Your task to perform on an android device: see creations saved in the google photos Image 0: 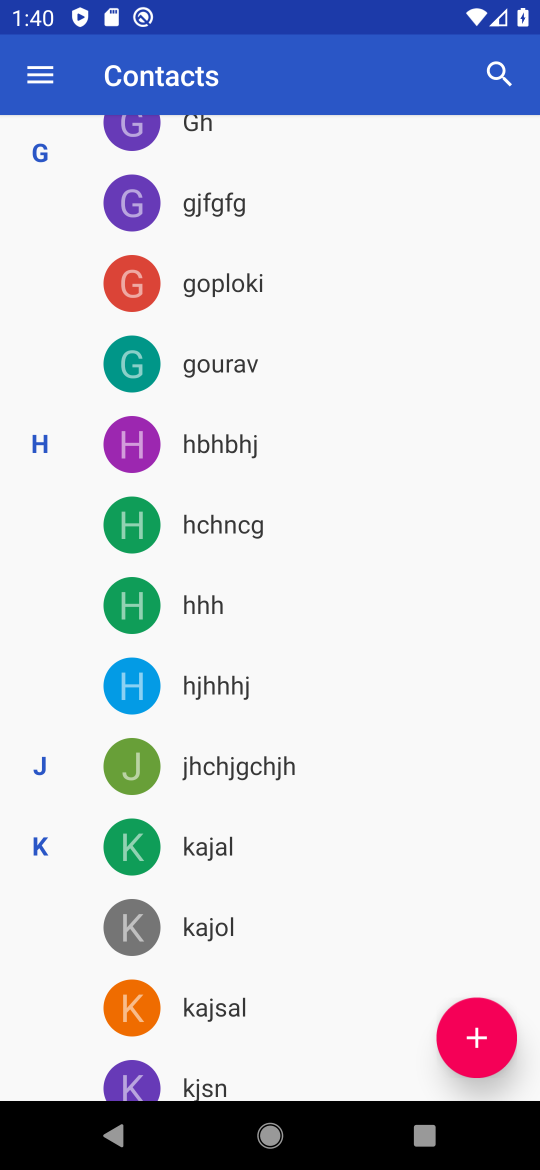
Step 0: drag from (271, 895) to (253, 266)
Your task to perform on an android device: see creations saved in the google photos Image 1: 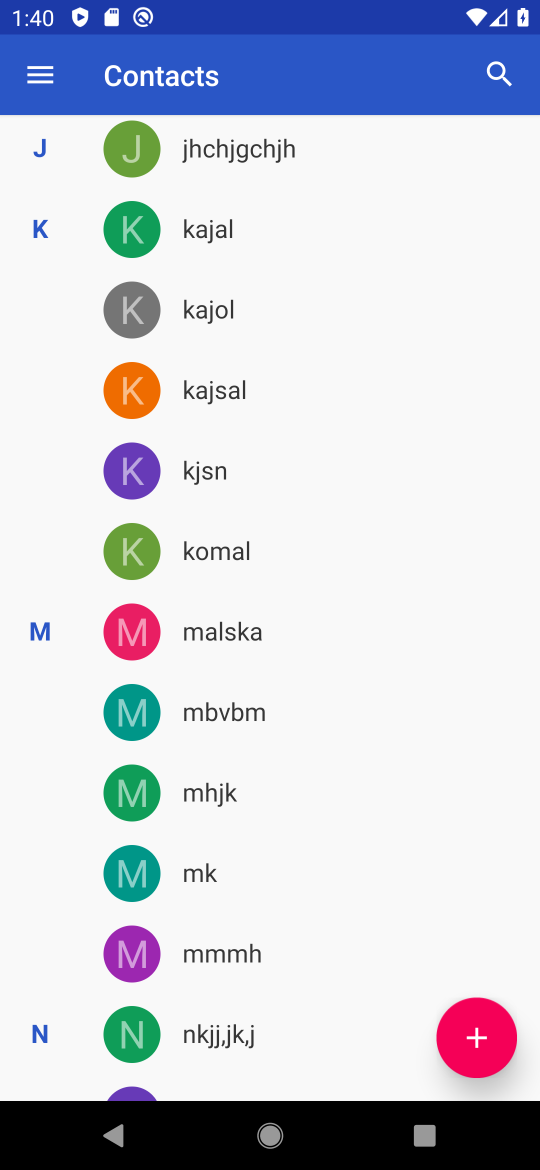
Step 1: drag from (334, 977) to (386, 301)
Your task to perform on an android device: see creations saved in the google photos Image 2: 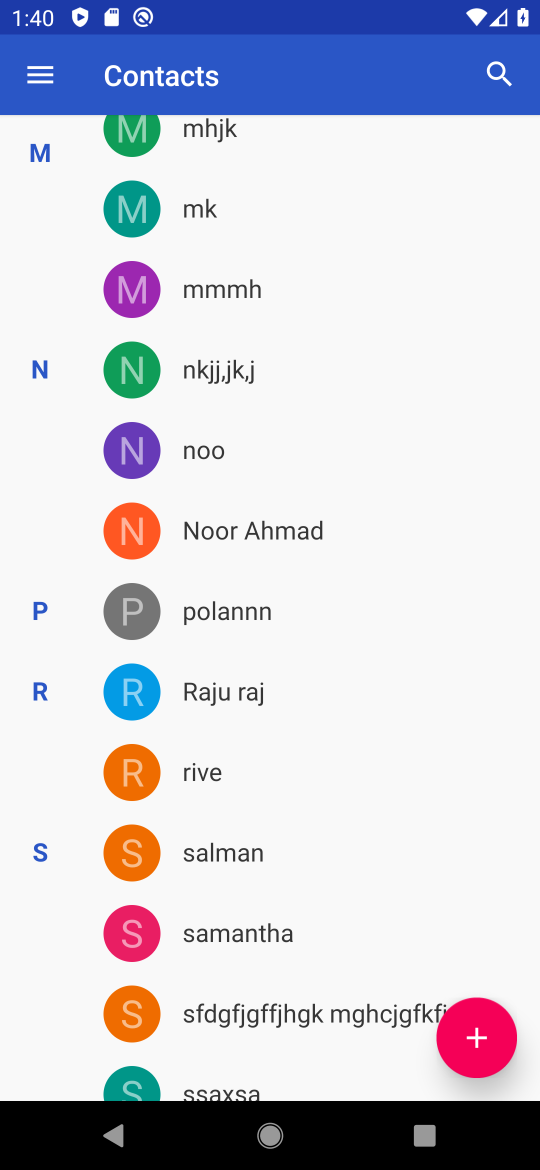
Step 2: drag from (236, 206) to (518, 902)
Your task to perform on an android device: see creations saved in the google photos Image 3: 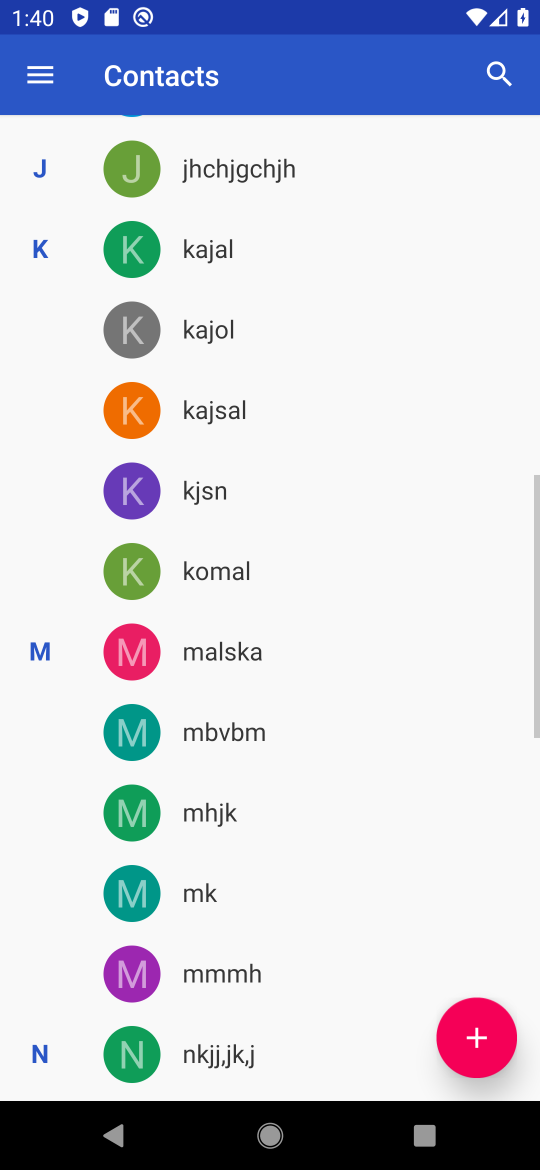
Step 3: press home button
Your task to perform on an android device: see creations saved in the google photos Image 4: 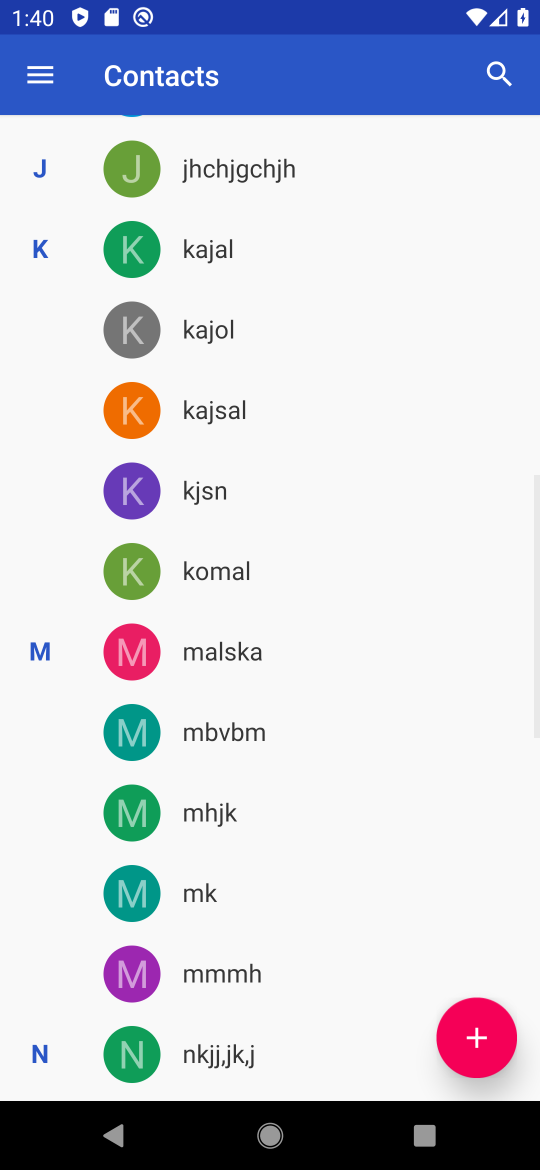
Step 4: click (493, 706)
Your task to perform on an android device: see creations saved in the google photos Image 5: 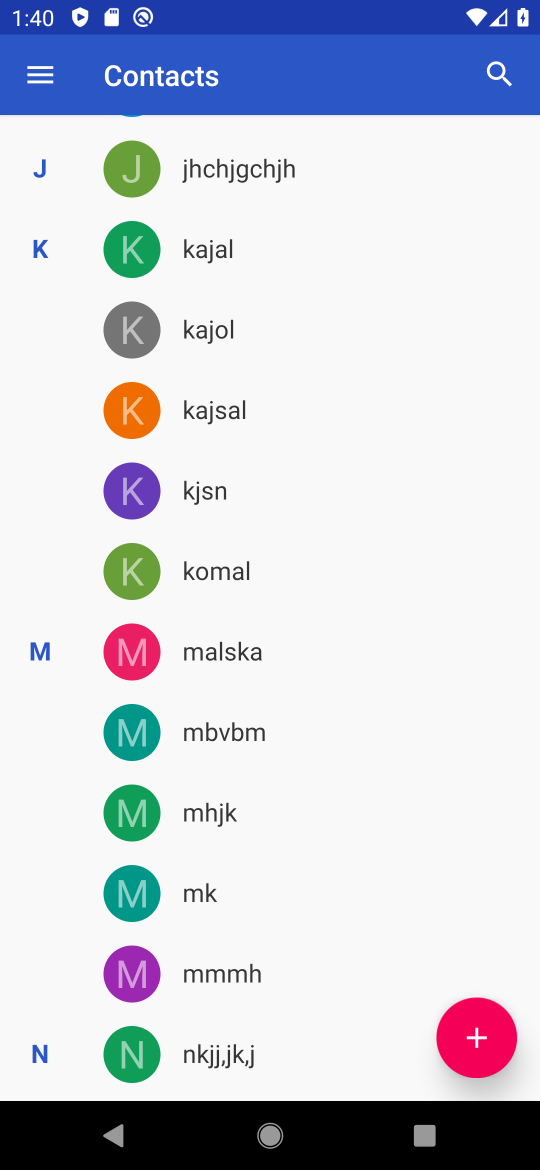
Step 5: drag from (213, 915) to (287, 54)
Your task to perform on an android device: see creations saved in the google photos Image 6: 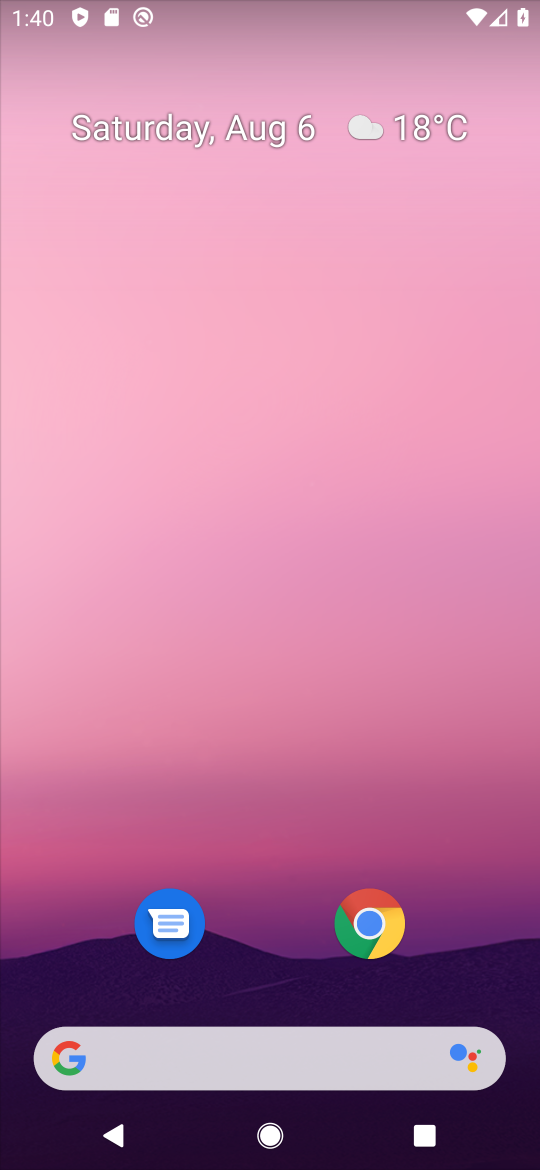
Step 6: drag from (308, 1023) to (325, 275)
Your task to perform on an android device: see creations saved in the google photos Image 7: 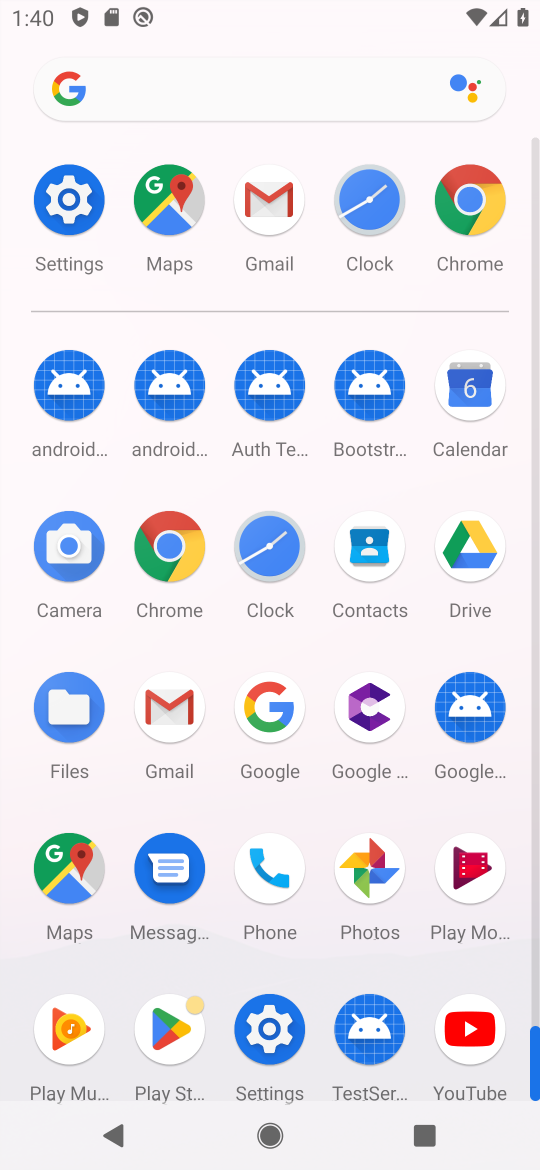
Step 7: click (377, 866)
Your task to perform on an android device: see creations saved in the google photos Image 8: 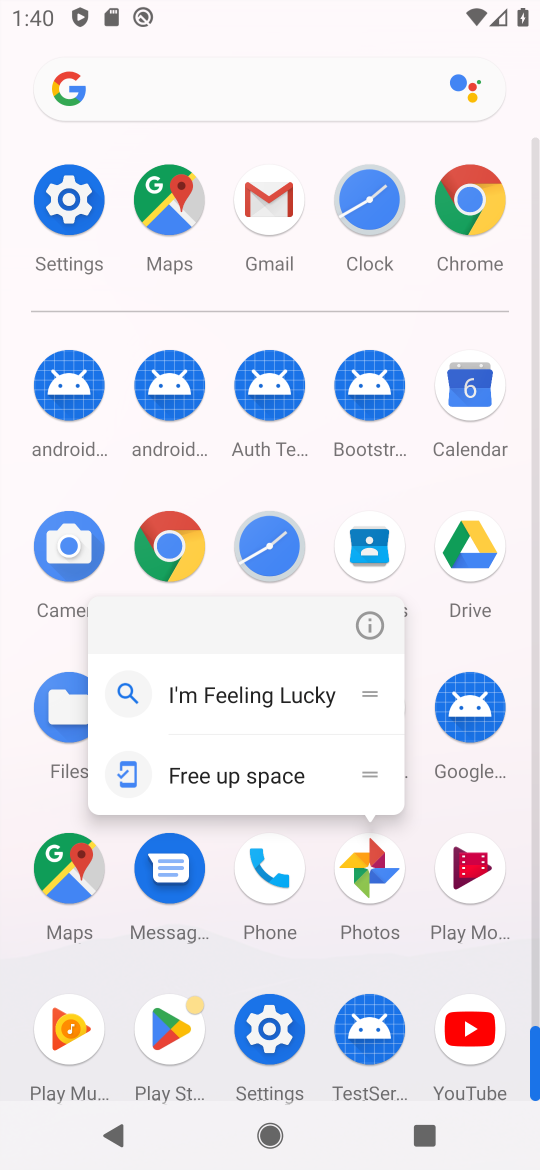
Step 8: click (358, 625)
Your task to perform on an android device: see creations saved in the google photos Image 9: 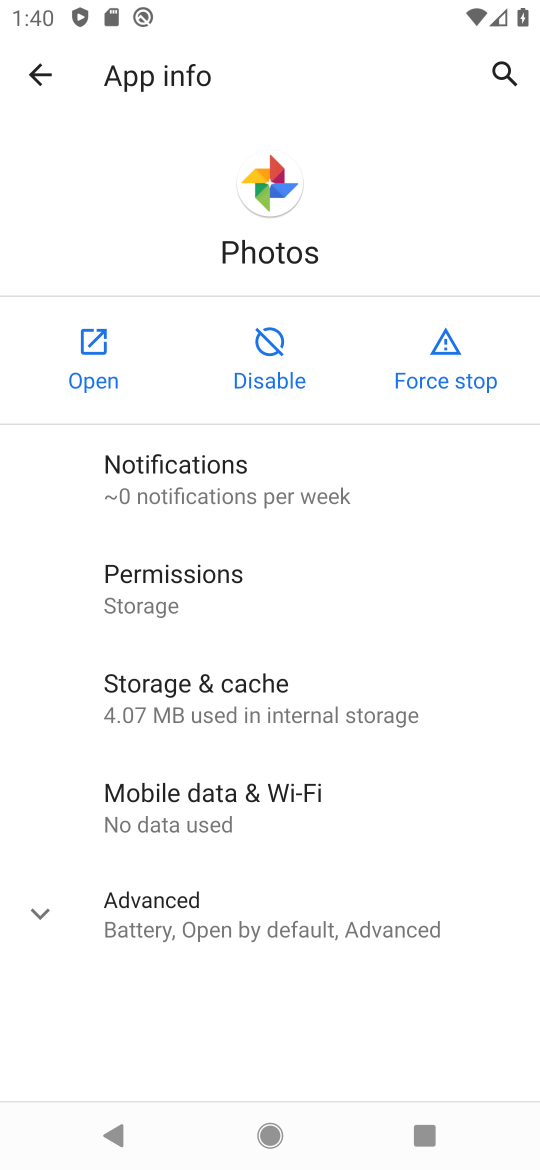
Step 9: click (77, 347)
Your task to perform on an android device: see creations saved in the google photos Image 10: 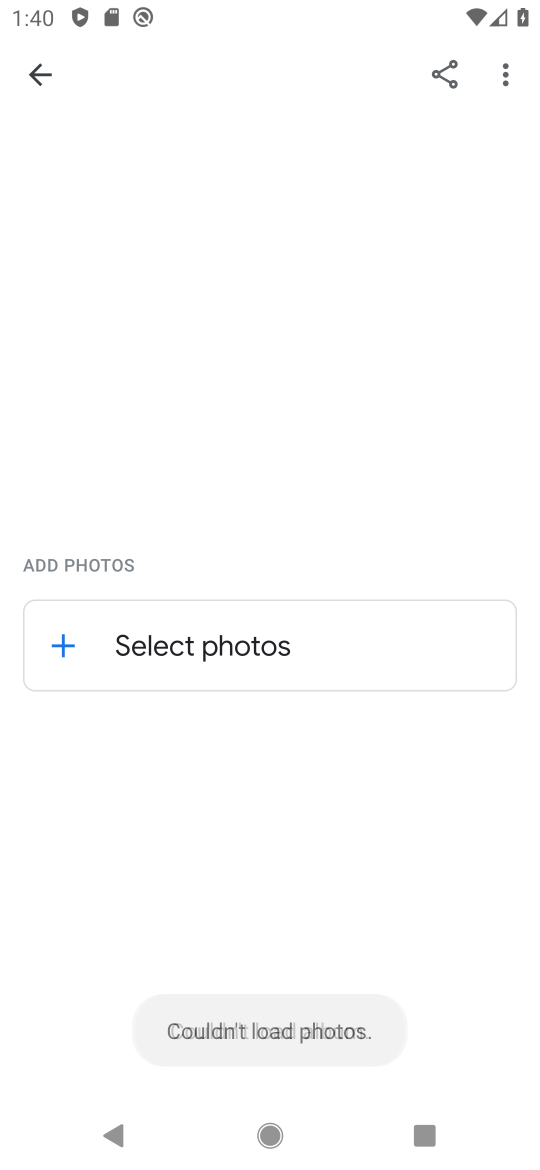
Step 10: click (46, 70)
Your task to perform on an android device: see creations saved in the google photos Image 11: 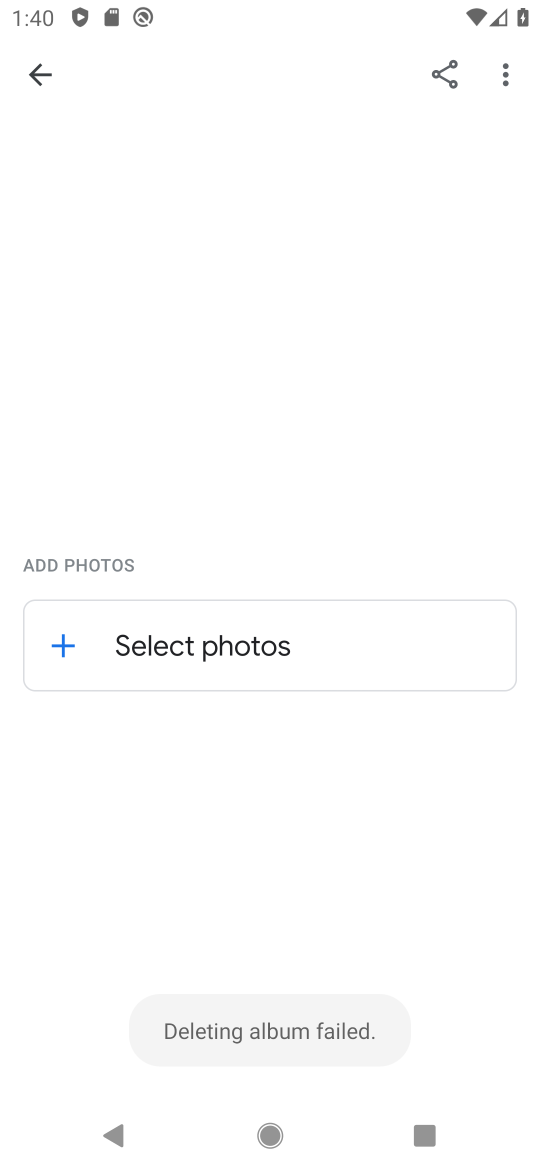
Step 11: click (45, 70)
Your task to perform on an android device: see creations saved in the google photos Image 12: 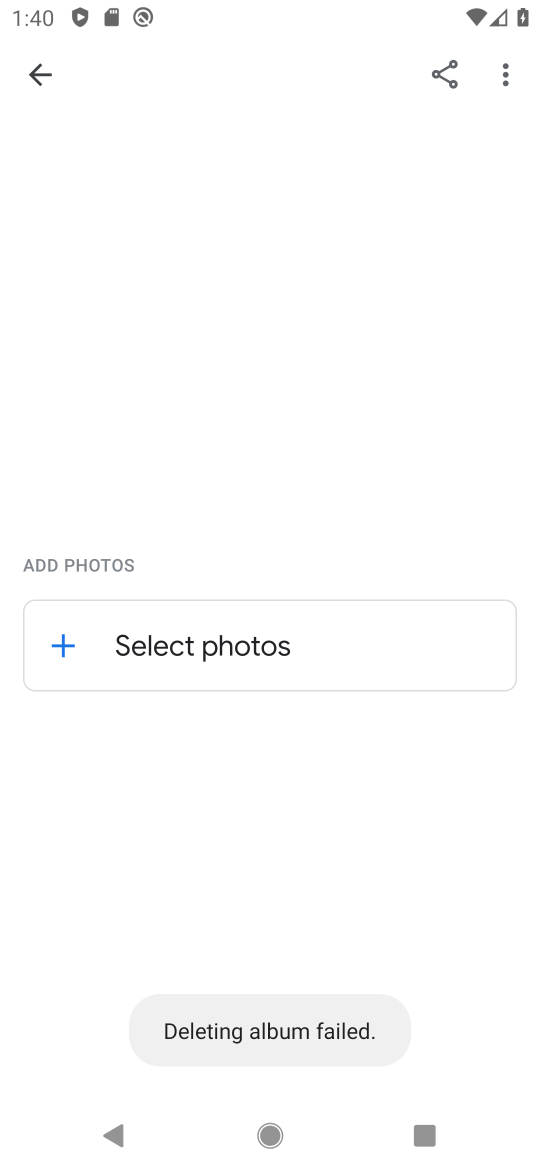
Step 12: task complete